Your task to perform on an android device: Open calendar and show me the fourth week of next month Image 0: 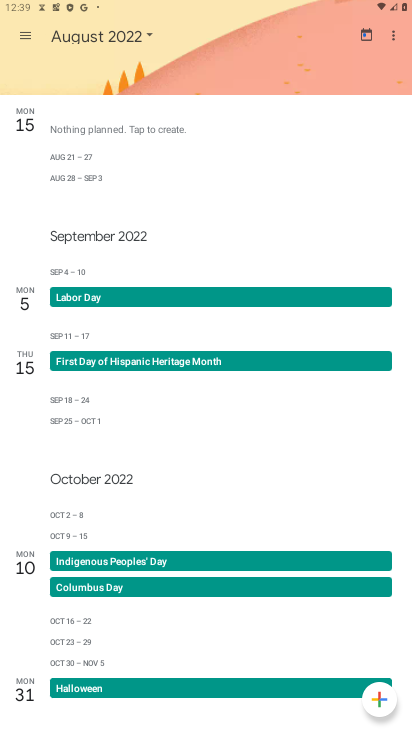
Step 0: press home button
Your task to perform on an android device: Open calendar and show me the fourth week of next month Image 1: 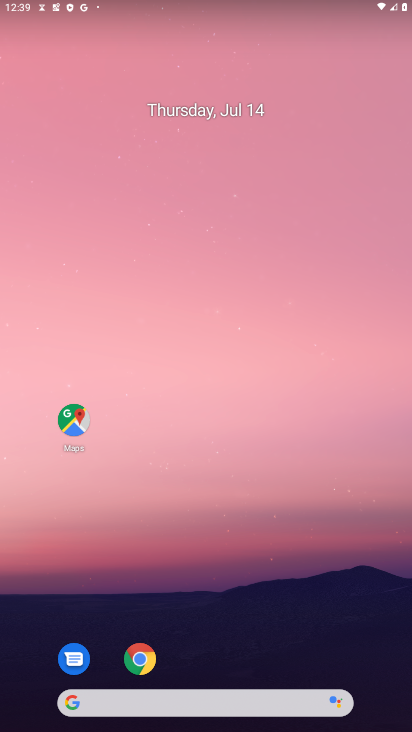
Step 1: drag from (44, 691) to (297, 156)
Your task to perform on an android device: Open calendar and show me the fourth week of next month Image 2: 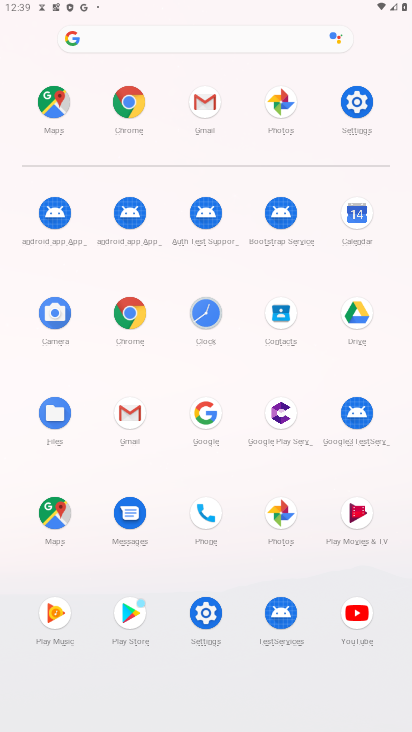
Step 2: click (352, 216)
Your task to perform on an android device: Open calendar and show me the fourth week of next month Image 3: 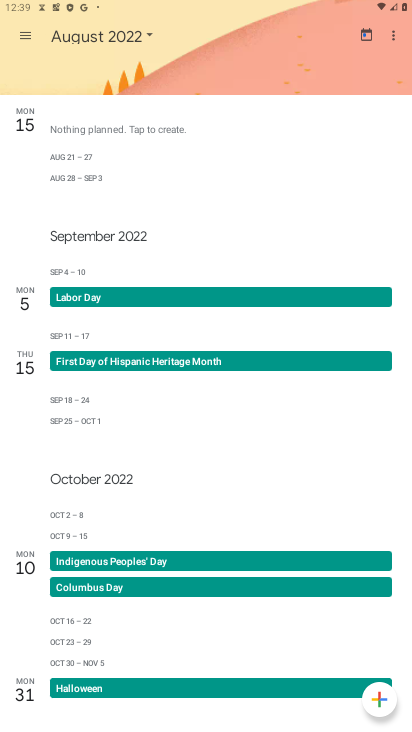
Step 3: click (133, 35)
Your task to perform on an android device: Open calendar and show me the fourth week of next month Image 4: 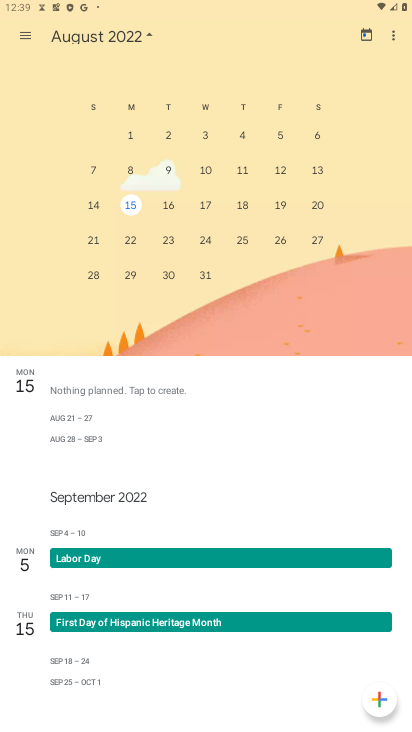
Step 4: drag from (36, 183) to (386, 159)
Your task to perform on an android device: Open calendar and show me the fourth week of next month Image 5: 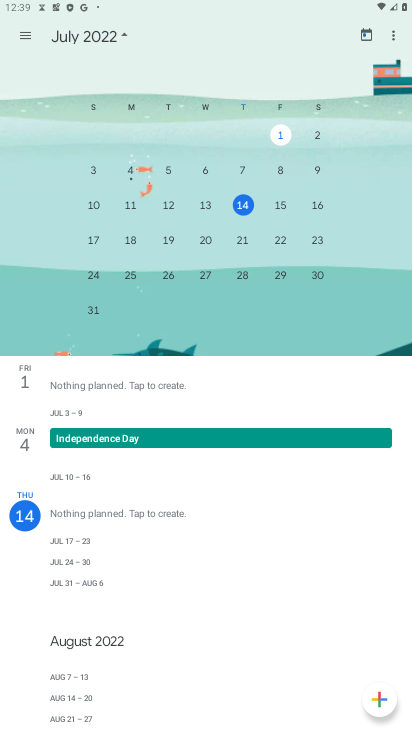
Step 5: drag from (376, 236) to (19, 236)
Your task to perform on an android device: Open calendar and show me the fourth week of next month Image 6: 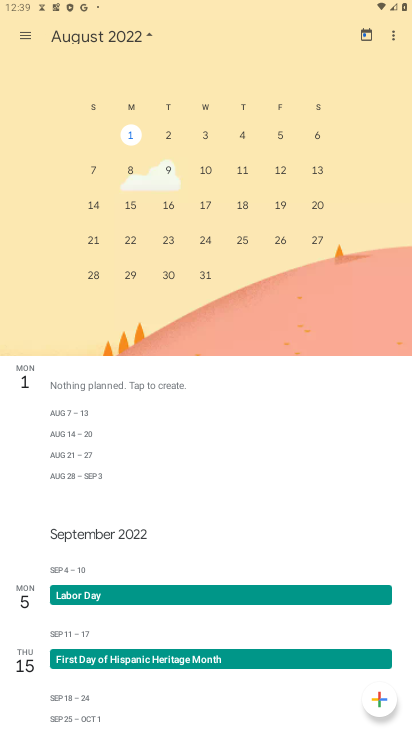
Step 6: click (129, 234)
Your task to perform on an android device: Open calendar and show me the fourth week of next month Image 7: 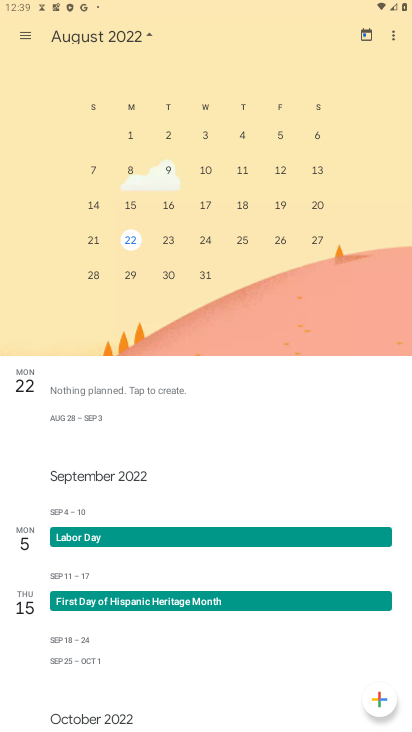
Step 7: task complete